Your task to perform on an android device: uninstall "Paramount+ | Peak Streaming" Image 0: 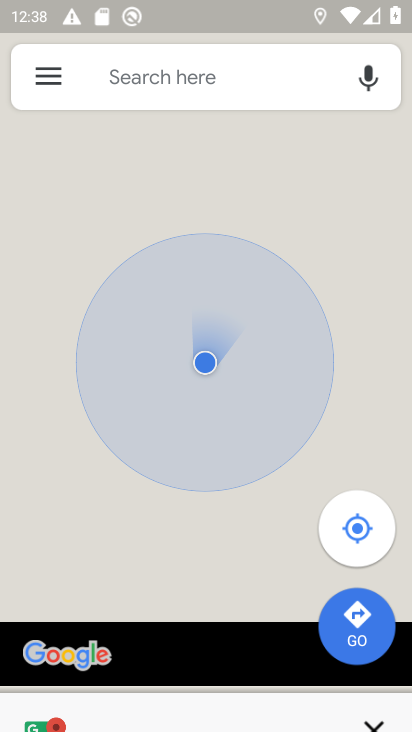
Step 0: press home button
Your task to perform on an android device: uninstall "Paramount+ | Peak Streaming" Image 1: 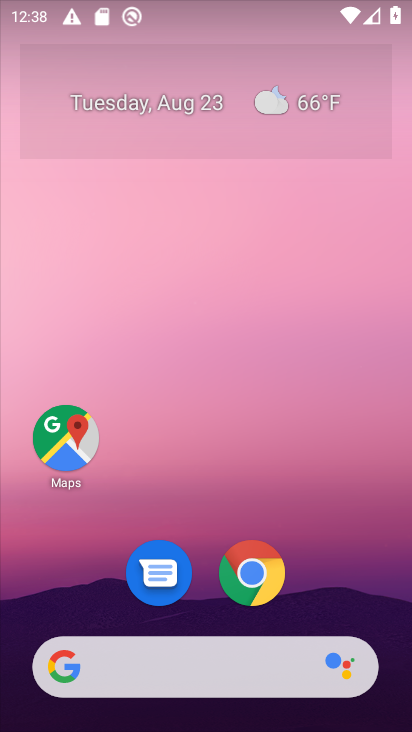
Step 1: drag from (202, 495) to (227, 205)
Your task to perform on an android device: uninstall "Paramount+ | Peak Streaming" Image 2: 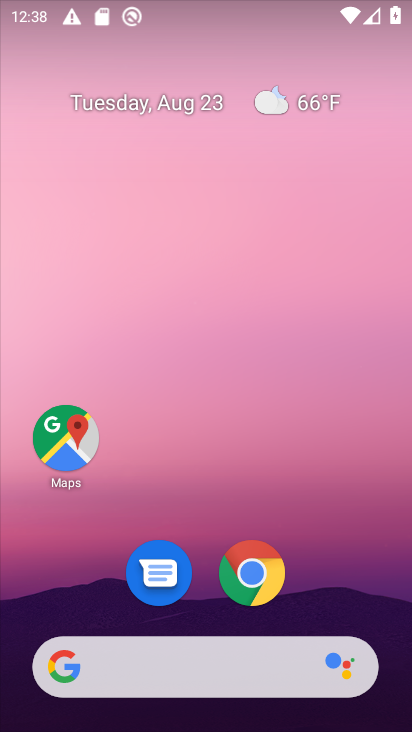
Step 2: drag from (195, 389) to (210, 151)
Your task to perform on an android device: uninstall "Paramount+ | Peak Streaming" Image 3: 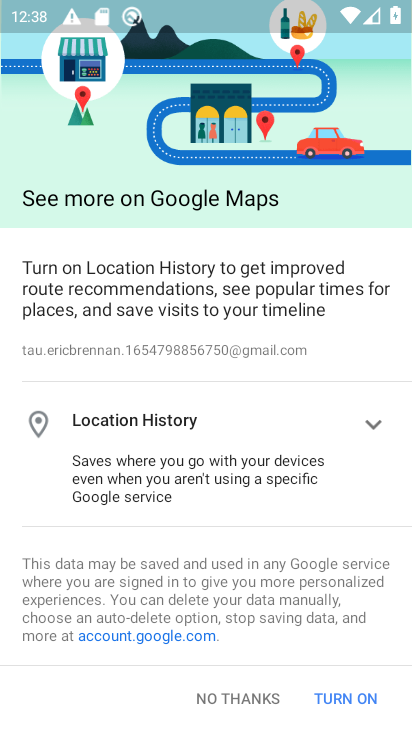
Step 3: press home button
Your task to perform on an android device: uninstall "Paramount+ | Peak Streaming" Image 4: 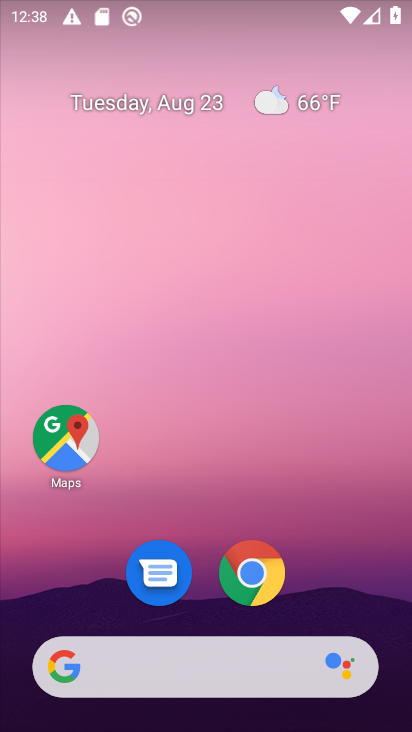
Step 4: drag from (209, 500) to (205, 80)
Your task to perform on an android device: uninstall "Paramount+ | Peak Streaming" Image 5: 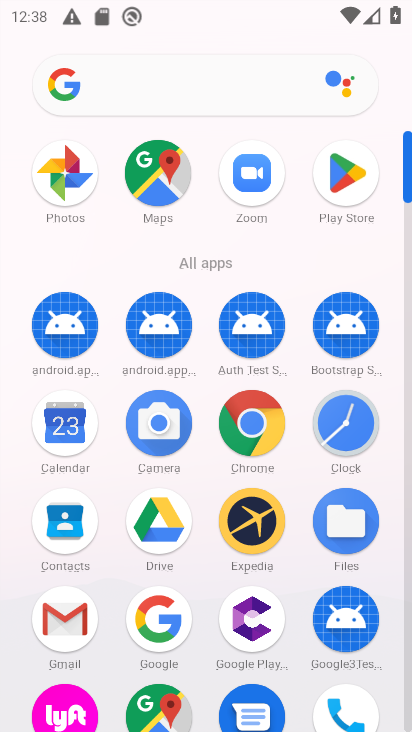
Step 5: click (338, 162)
Your task to perform on an android device: uninstall "Paramount+ | Peak Streaming" Image 6: 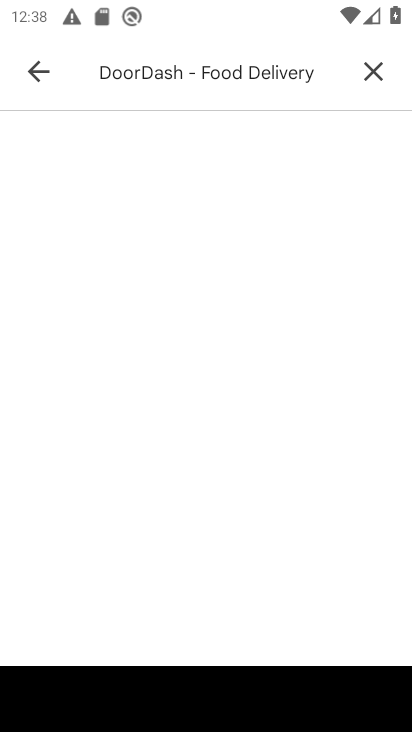
Step 6: click (372, 66)
Your task to perform on an android device: uninstall "Paramount+ | Peak Streaming" Image 7: 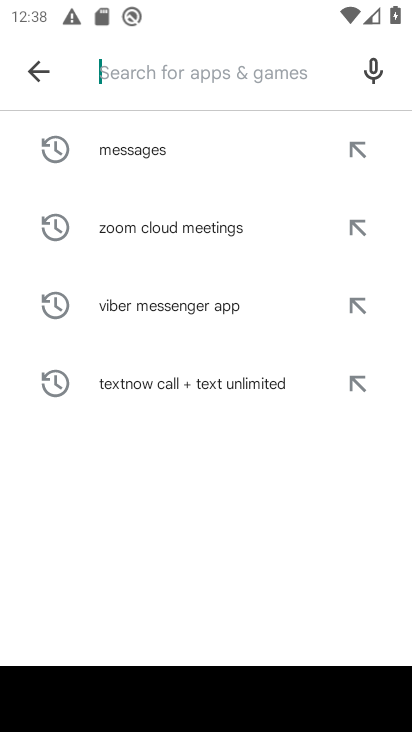
Step 7: type "Paramount+ | Peak Streaming"
Your task to perform on an android device: uninstall "Paramount+ | Peak Streaming" Image 8: 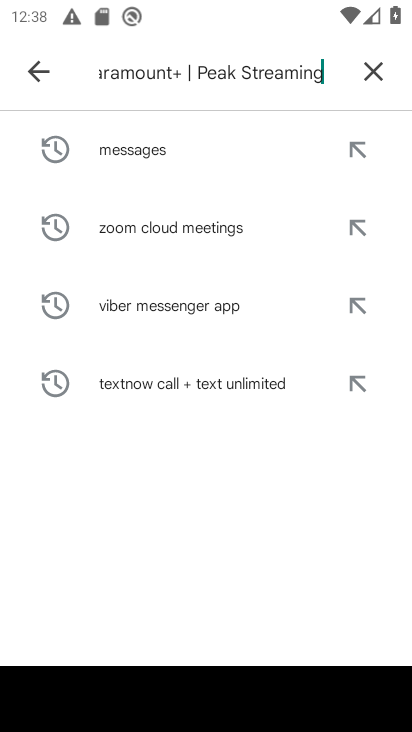
Step 8: type ""
Your task to perform on an android device: uninstall "Paramount+ | Peak Streaming" Image 9: 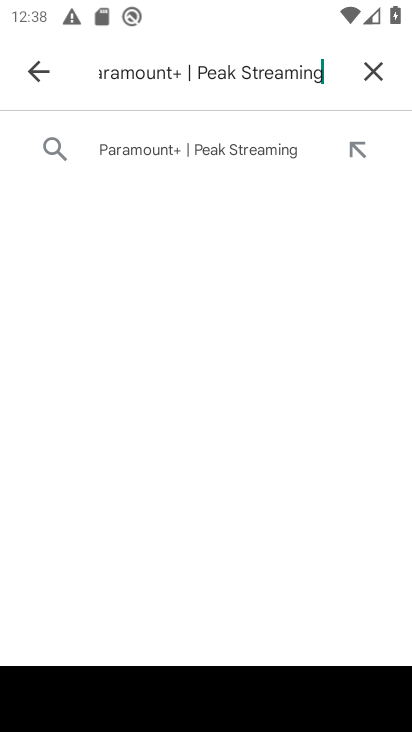
Step 9: click (181, 142)
Your task to perform on an android device: uninstall "Paramount+ | Peak Streaming" Image 10: 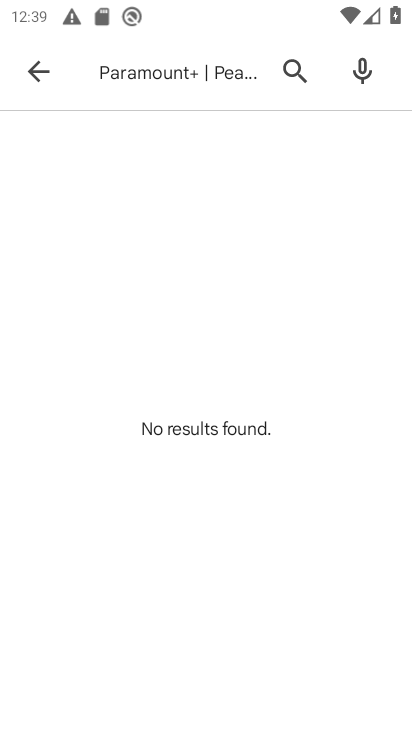
Step 10: task complete